Your task to perform on an android device: turn off airplane mode Image 0: 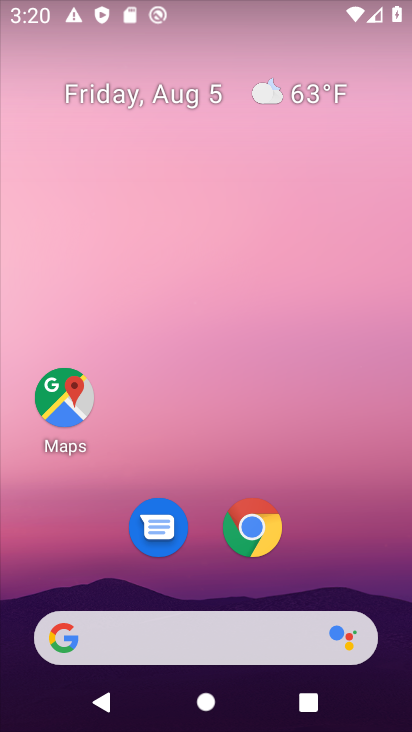
Step 0: drag from (225, 536) to (232, 52)
Your task to perform on an android device: turn off airplane mode Image 1: 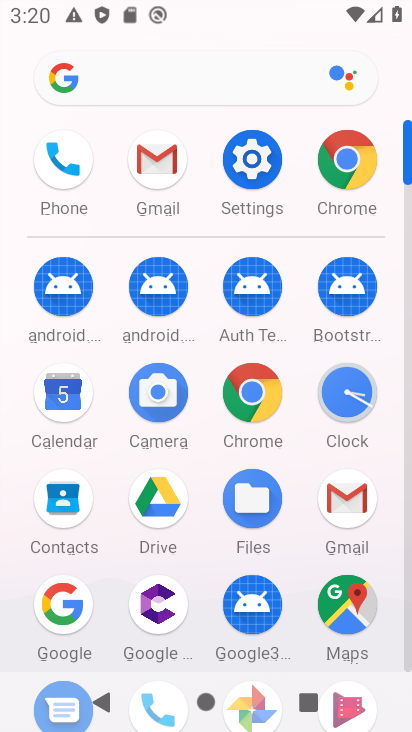
Step 1: click (254, 162)
Your task to perform on an android device: turn off airplane mode Image 2: 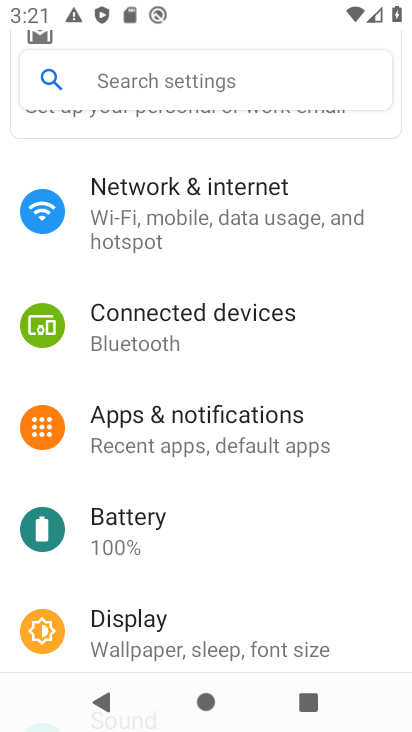
Step 2: click (167, 193)
Your task to perform on an android device: turn off airplane mode Image 3: 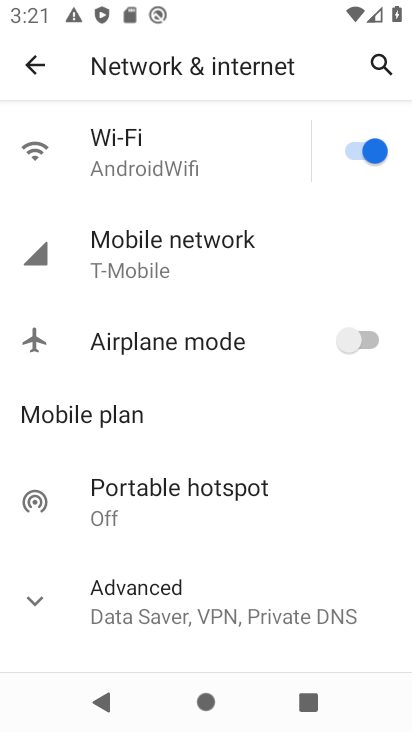
Step 3: task complete